Your task to perform on an android device: read, delete, or share a saved page in the chrome app Image 0: 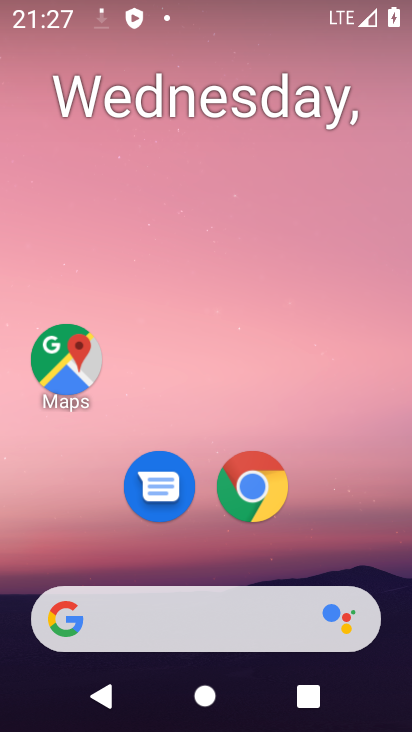
Step 0: click (275, 484)
Your task to perform on an android device: read, delete, or share a saved page in the chrome app Image 1: 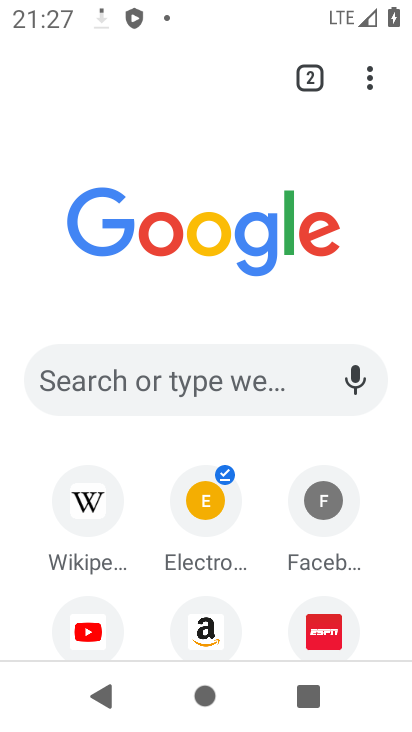
Step 1: drag from (370, 75) to (175, 497)
Your task to perform on an android device: read, delete, or share a saved page in the chrome app Image 2: 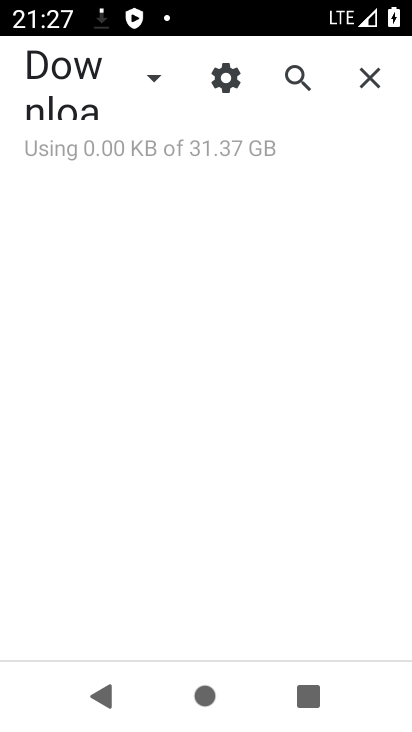
Step 2: click (148, 76)
Your task to perform on an android device: read, delete, or share a saved page in the chrome app Image 3: 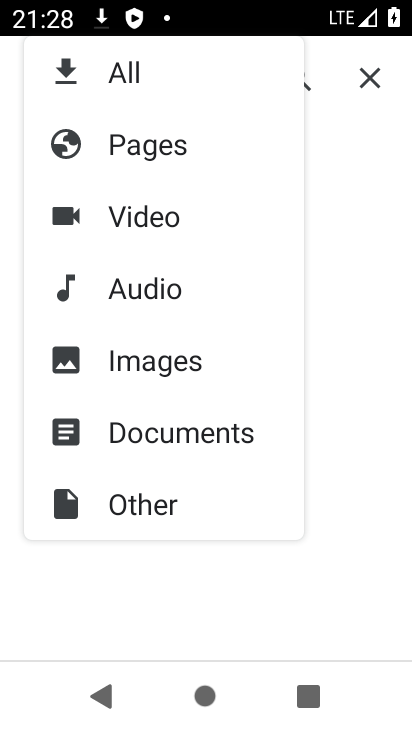
Step 3: click (156, 150)
Your task to perform on an android device: read, delete, or share a saved page in the chrome app Image 4: 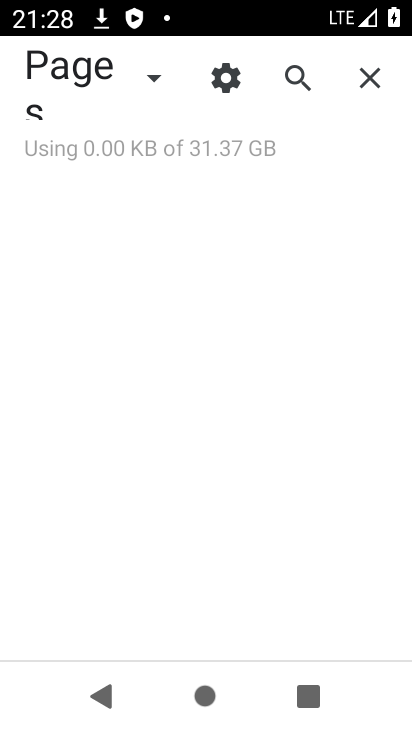
Step 4: click (162, 72)
Your task to perform on an android device: read, delete, or share a saved page in the chrome app Image 5: 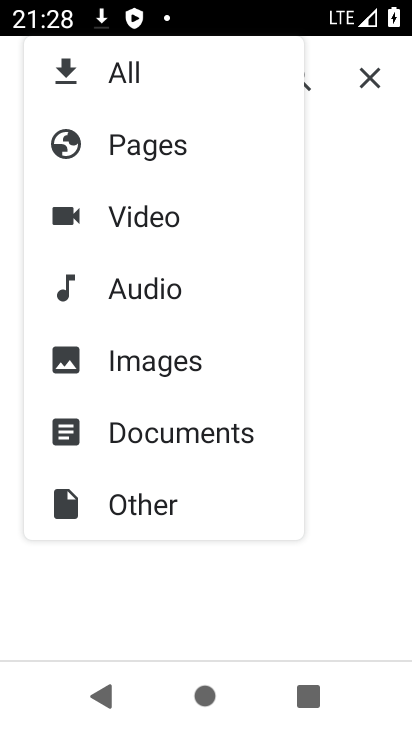
Step 5: click (137, 138)
Your task to perform on an android device: read, delete, or share a saved page in the chrome app Image 6: 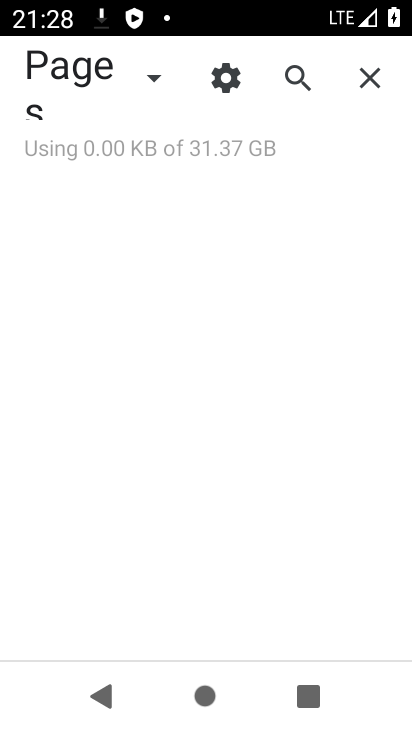
Step 6: task complete